Your task to perform on an android device: Open ESPN.com Image 0: 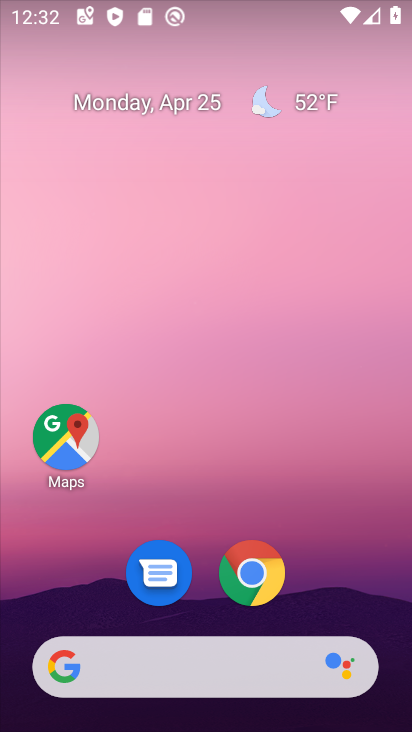
Step 0: click (272, 575)
Your task to perform on an android device: Open ESPN.com Image 1: 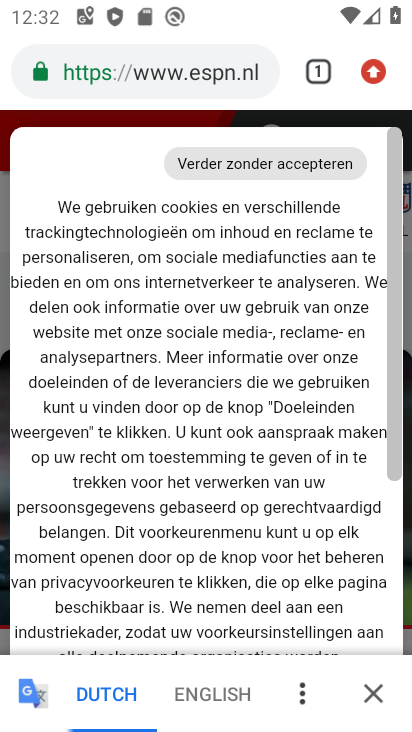
Step 1: click (362, 680)
Your task to perform on an android device: Open ESPN.com Image 2: 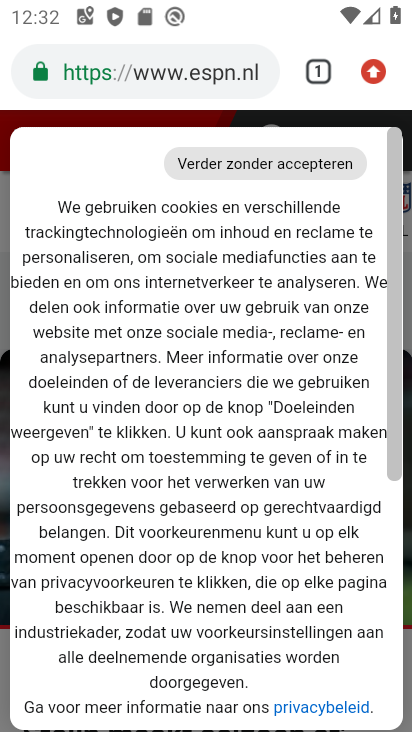
Step 2: click (316, 85)
Your task to perform on an android device: Open ESPN.com Image 3: 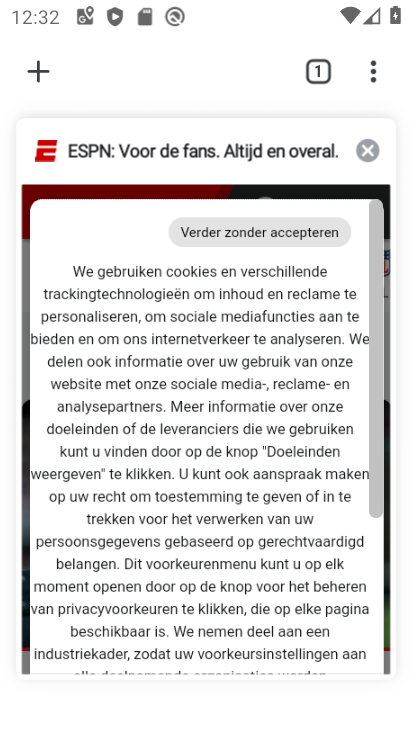
Step 3: click (364, 142)
Your task to perform on an android device: Open ESPN.com Image 4: 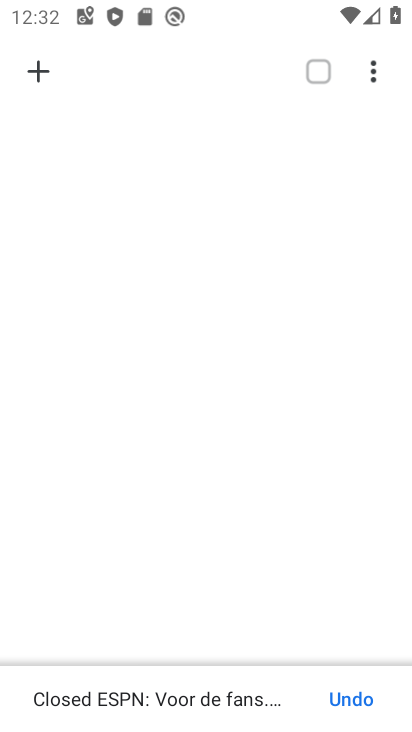
Step 4: click (33, 64)
Your task to perform on an android device: Open ESPN.com Image 5: 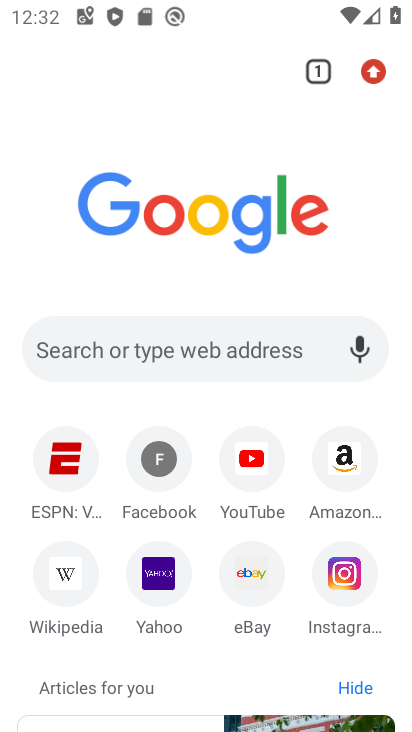
Step 5: click (68, 451)
Your task to perform on an android device: Open ESPN.com Image 6: 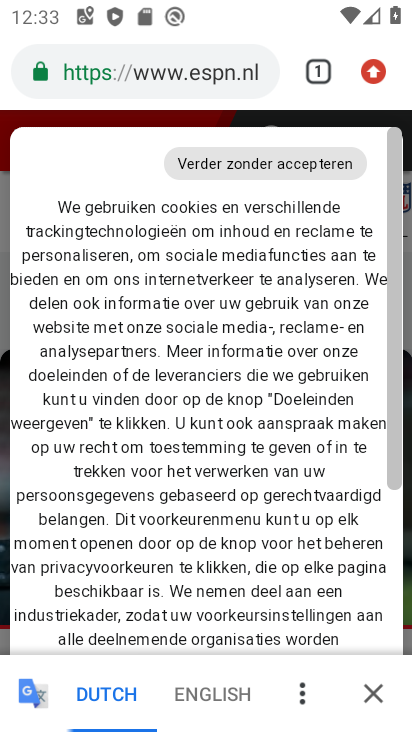
Step 6: click (379, 696)
Your task to perform on an android device: Open ESPN.com Image 7: 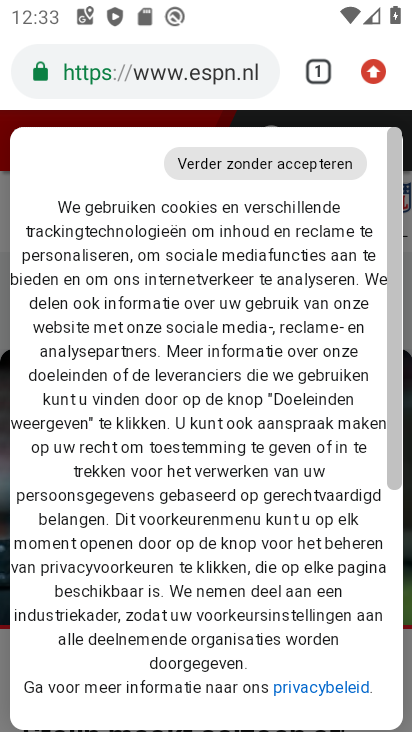
Step 7: drag from (227, 575) to (210, 147)
Your task to perform on an android device: Open ESPN.com Image 8: 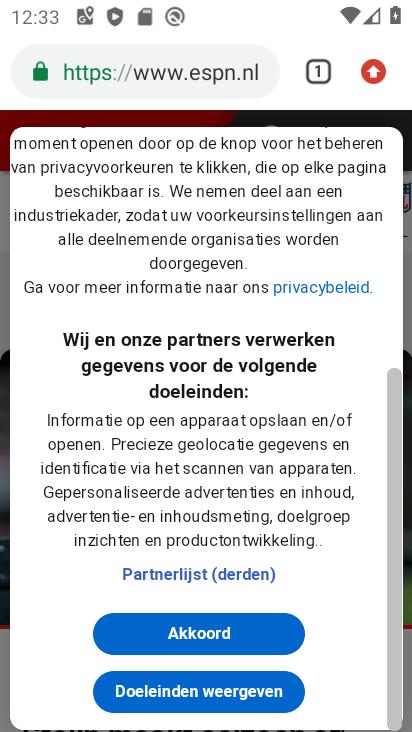
Step 8: click (210, 631)
Your task to perform on an android device: Open ESPN.com Image 9: 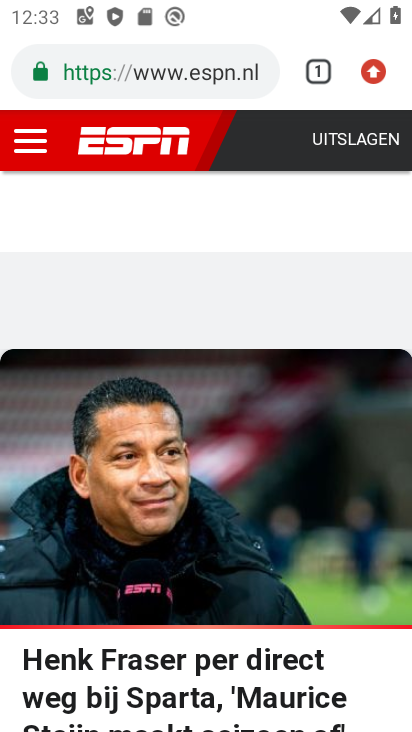
Step 9: task complete